Your task to perform on an android device: Toggle the flashlight Image 0: 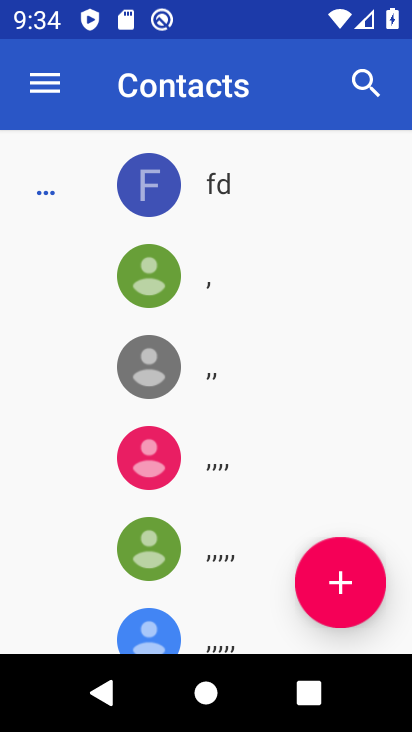
Step 0: press home button
Your task to perform on an android device: Toggle the flashlight Image 1: 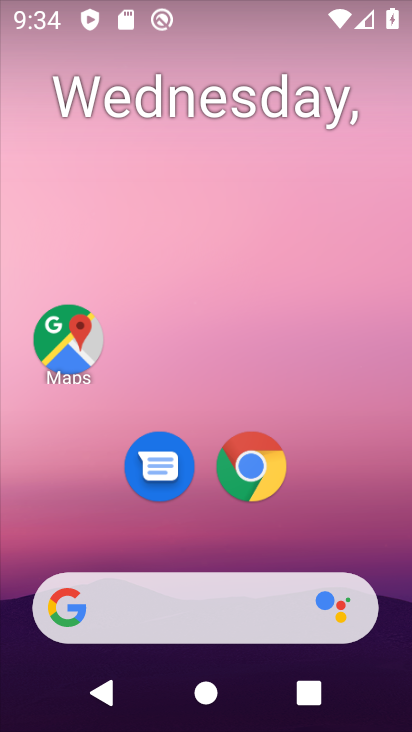
Step 1: drag from (388, 588) to (101, 180)
Your task to perform on an android device: Toggle the flashlight Image 2: 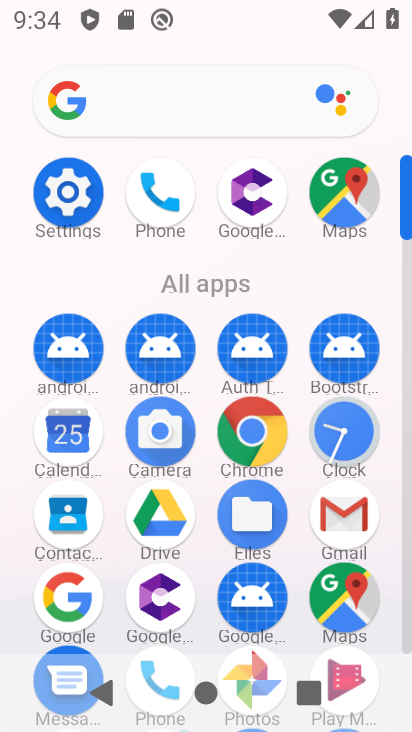
Step 2: click (73, 222)
Your task to perform on an android device: Toggle the flashlight Image 3: 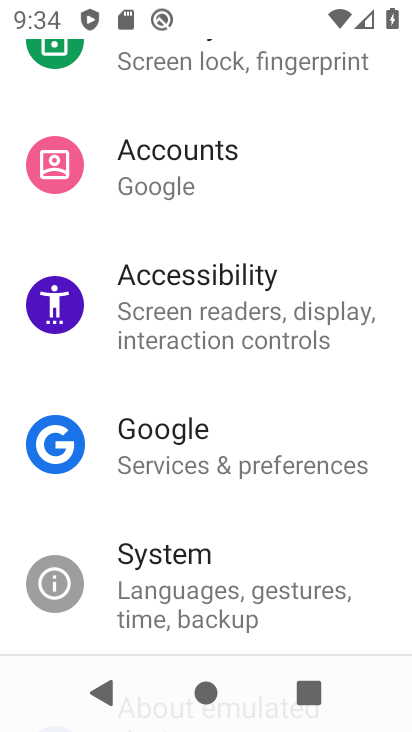
Step 3: drag from (294, 115) to (248, 525)
Your task to perform on an android device: Toggle the flashlight Image 4: 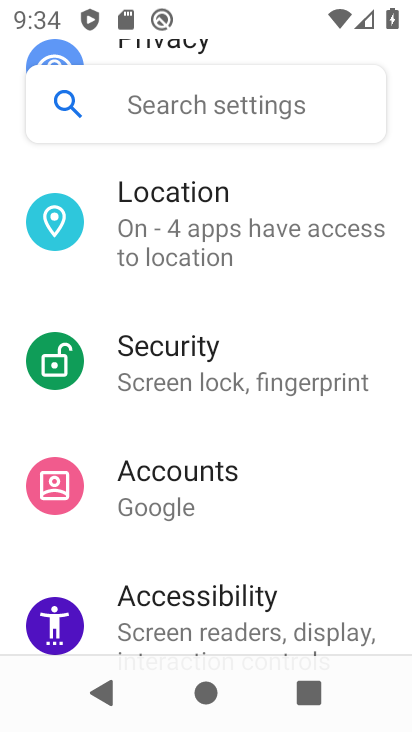
Step 4: click (204, 105)
Your task to perform on an android device: Toggle the flashlight Image 5: 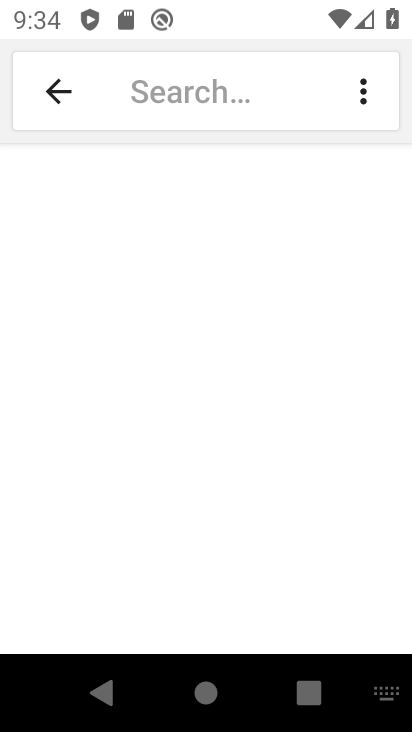
Step 5: click (256, 111)
Your task to perform on an android device: Toggle the flashlight Image 6: 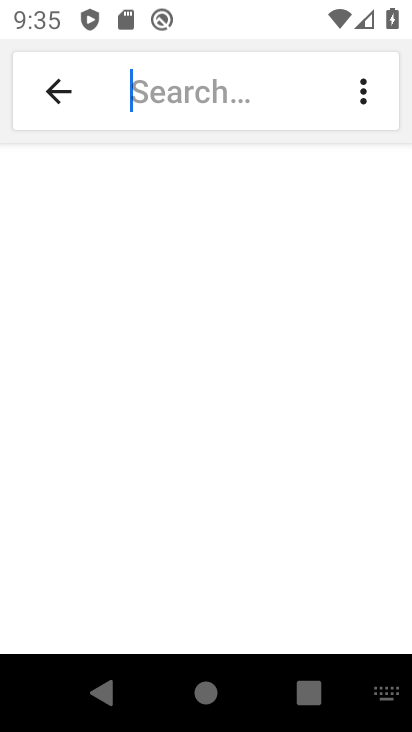
Step 6: type "flashlight"
Your task to perform on an android device: Toggle the flashlight Image 7: 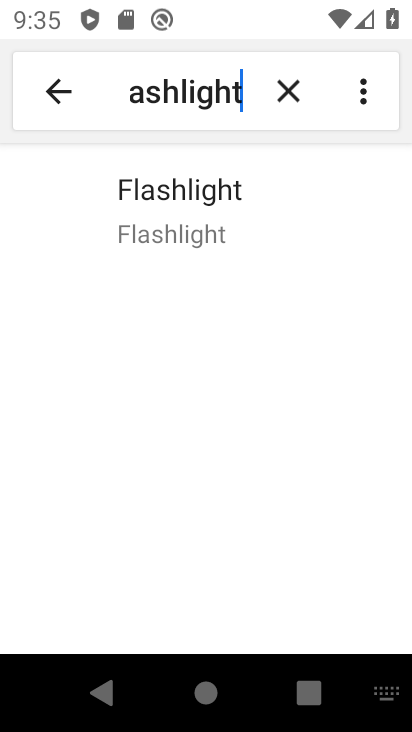
Step 7: click (196, 209)
Your task to perform on an android device: Toggle the flashlight Image 8: 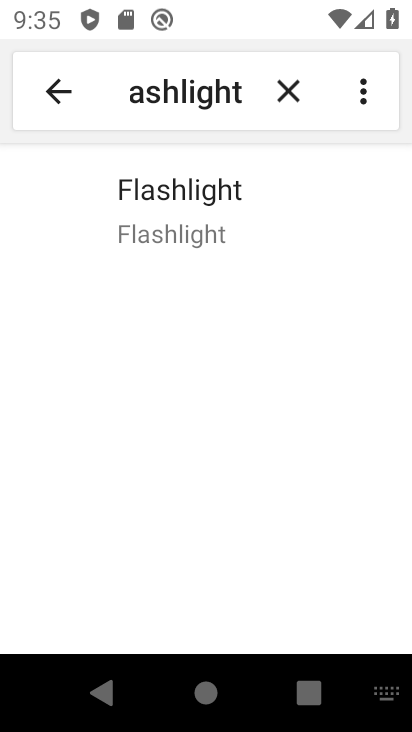
Step 8: click (196, 209)
Your task to perform on an android device: Toggle the flashlight Image 9: 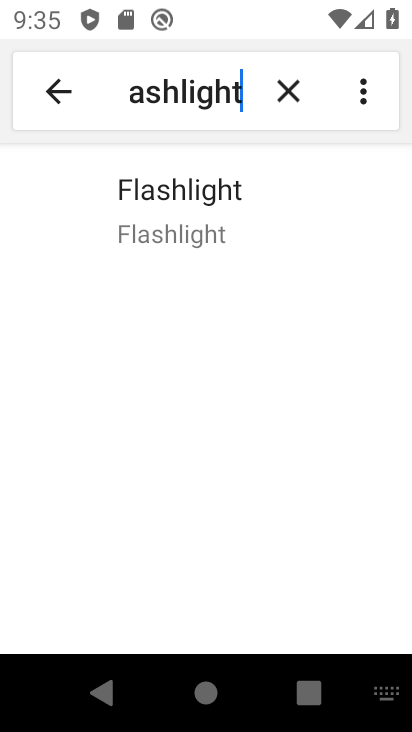
Step 9: task complete